Your task to perform on an android device: Show me popular games on the Play Store Image 0: 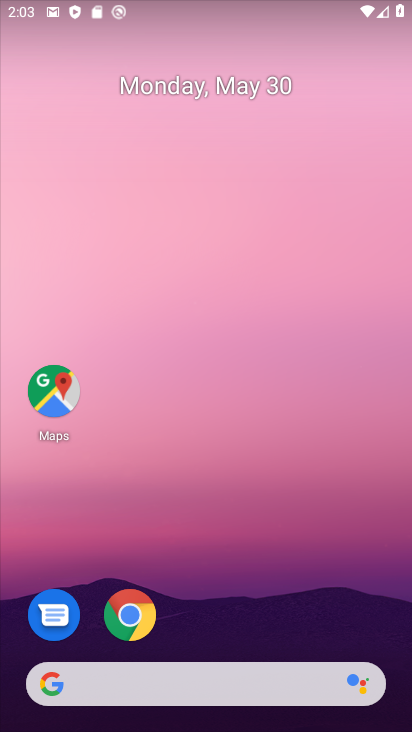
Step 0: drag from (231, 585) to (239, 1)
Your task to perform on an android device: Show me popular games on the Play Store Image 1: 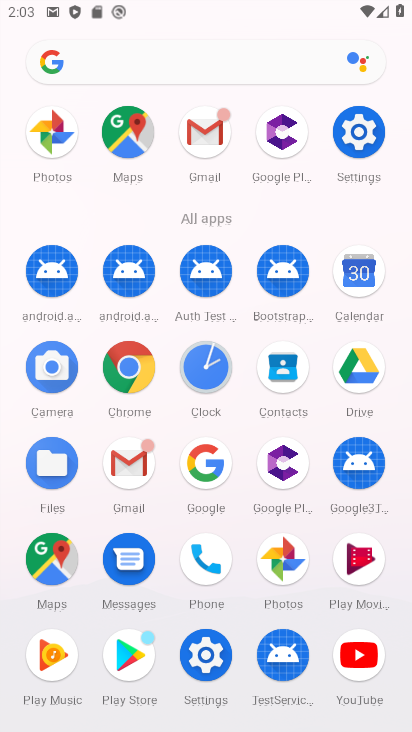
Step 1: click (134, 656)
Your task to perform on an android device: Show me popular games on the Play Store Image 2: 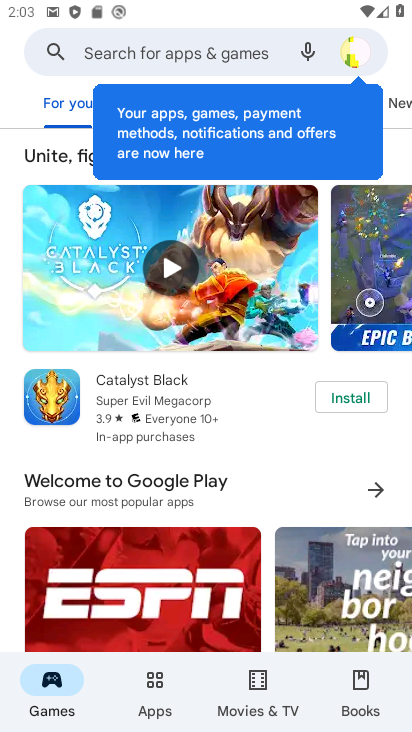
Step 2: drag from (264, 540) to (304, 181)
Your task to perform on an android device: Show me popular games on the Play Store Image 3: 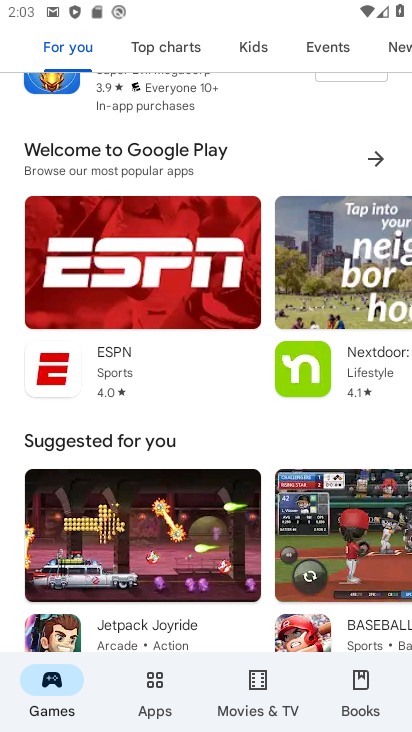
Step 3: drag from (307, 517) to (317, 112)
Your task to perform on an android device: Show me popular games on the Play Store Image 4: 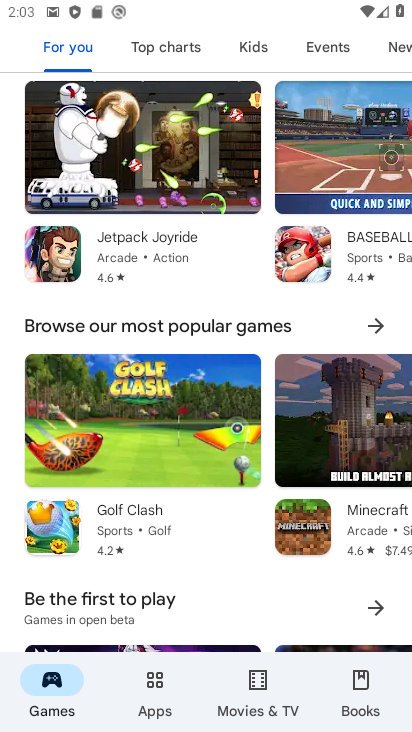
Step 4: click (370, 319)
Your task to perform on an android device: Show me popular games on the Play Store Image 5: 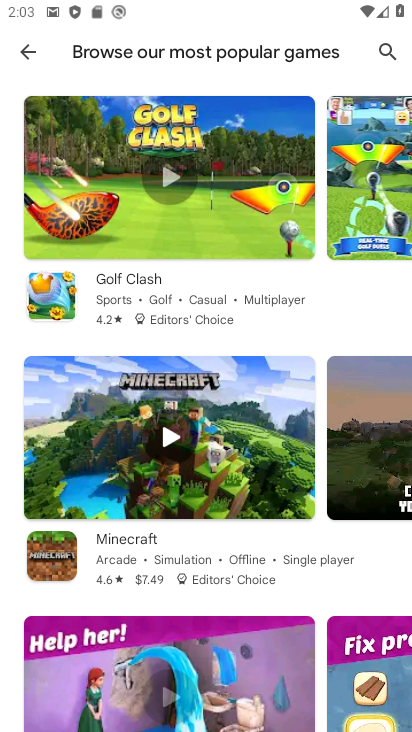
Step 5: task complete